Your task to perform on an android device: all mails in gmail Image 0: 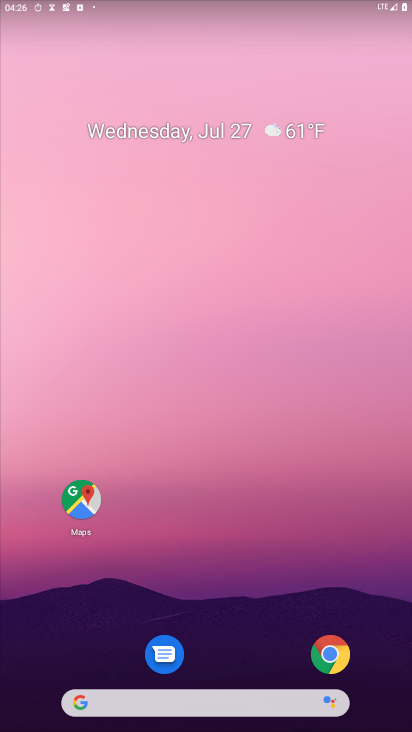
Step 0: drag from (137, 701) to (177, 48)
Your task to perform on an android device: all mails in gmail Image 1: 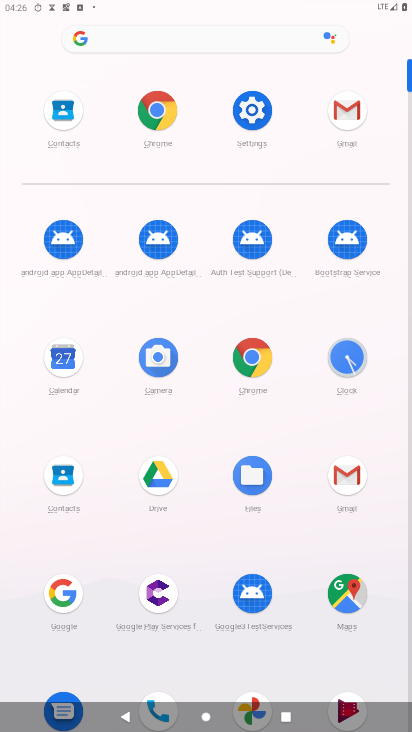
Step 1: click (351, 483)
Your task to perform on an android device: all mails in gmail Image 2: 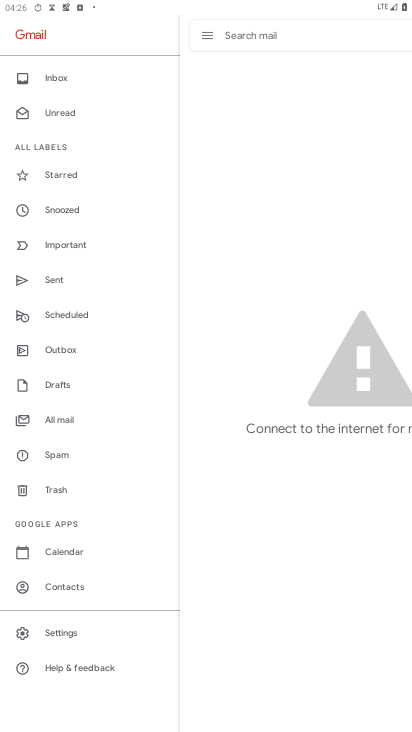
Step 2: click (48, 419)
Your task to perform on an android device: all mails in gmail Image 3: 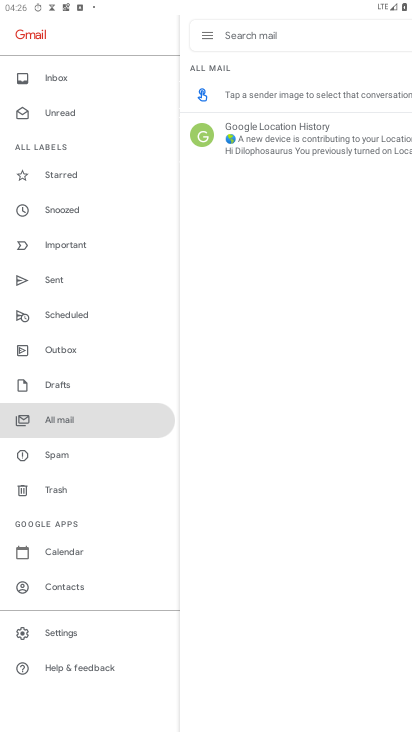
Step 3: task complete